Your task to perform on an android device: Open the calendar and show me this week's events? Image 0: 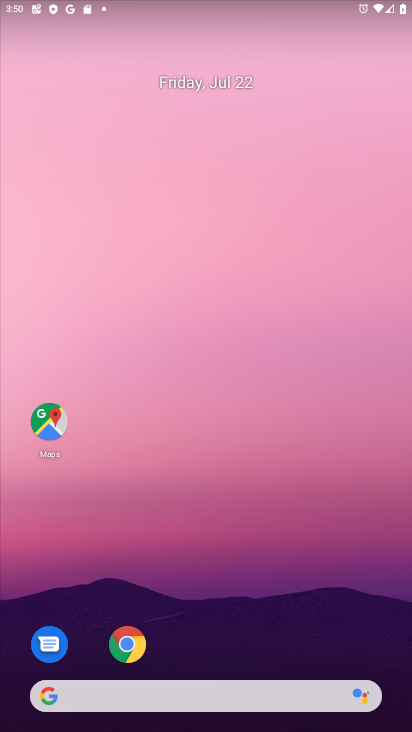
Step 0: drag from (245, 644) to (184, 329)
Your task to perform on an android device: Open the calendar and show me this week's events? Image 1: 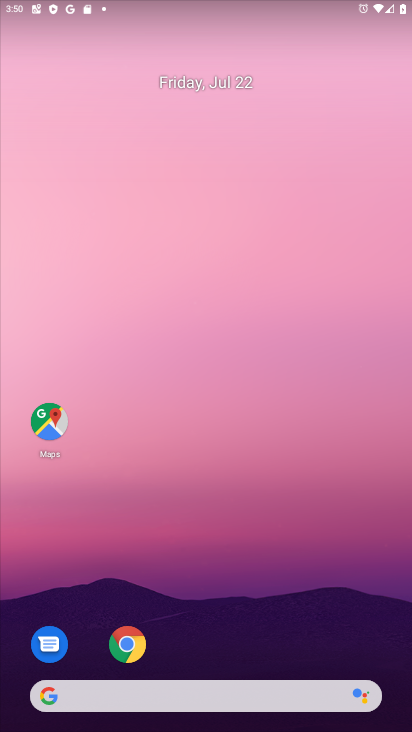
Step 1: drag from (264, 580) to (229, 252)
Your task to perform on an android device: Open the calendar and show me this week's events? Image 2: 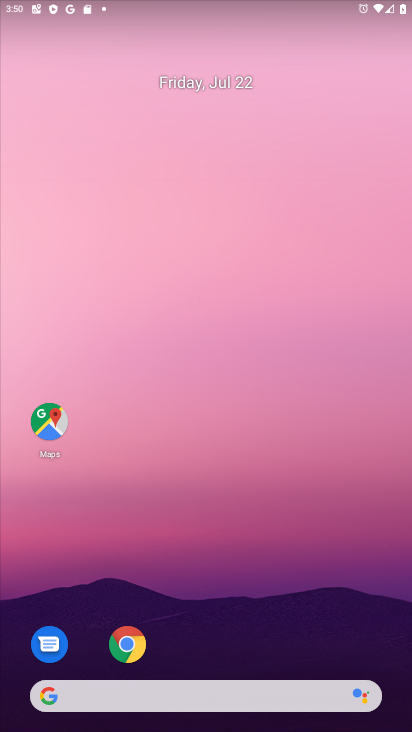
Step 2: drag from (290, 597) to (292, 311)
Your task to perform on an android device: Open the calendar and show me this week's events? Image 3: 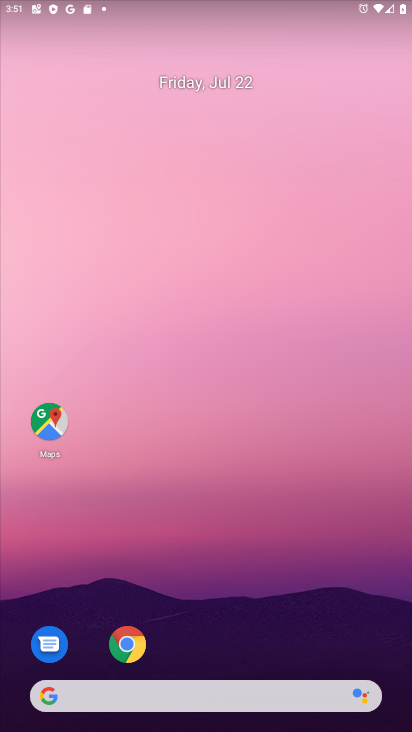
Step 3: drag from (278, 514) to (269, 78)
Your task to perform on an android device: Open the calendar and show me this week's events? Image 4: 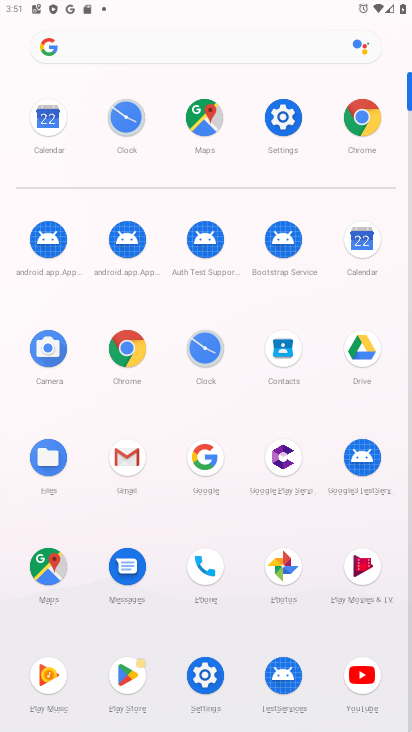
Step 4: click (355, 231)
Your task to perform on an android device: Open the calendar and show me this week's events? Image 5: 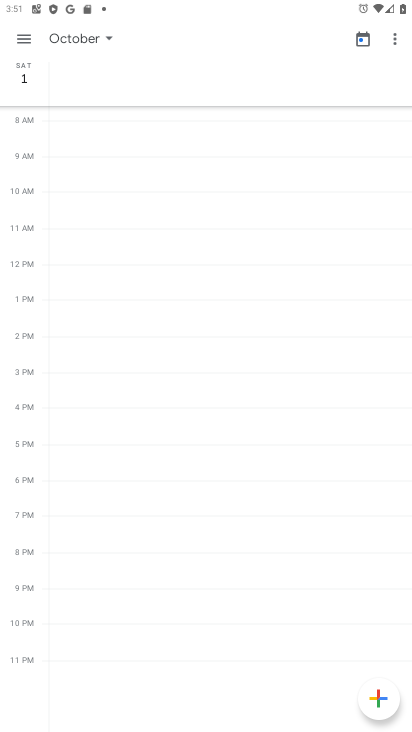
Step 5: task complete